Your task to perform on an android device: Open maps Image 0: 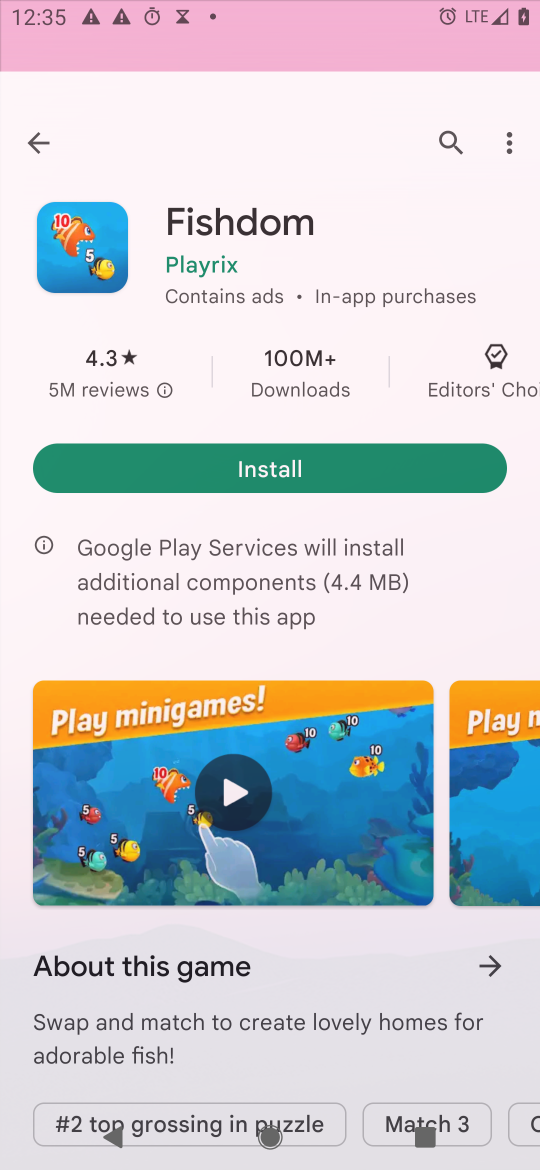
Step 0: drag from (219, 724) to (201, 476)
Your task to perform on an android device: Open maps Image 1: 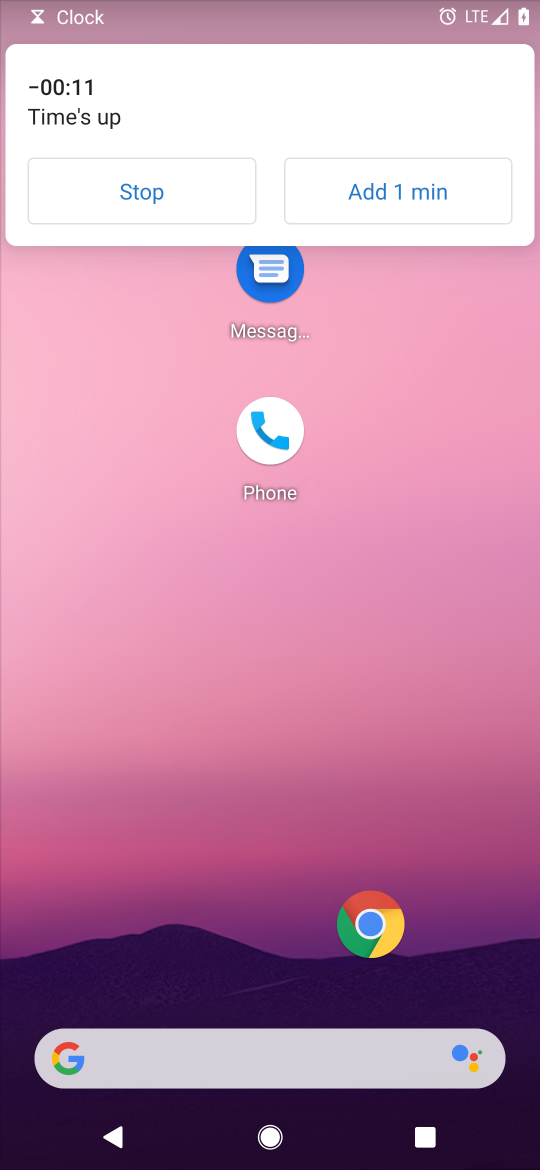
Step 1: click (132, 170)
Your task to perform on an android device: Open maps Image 2: 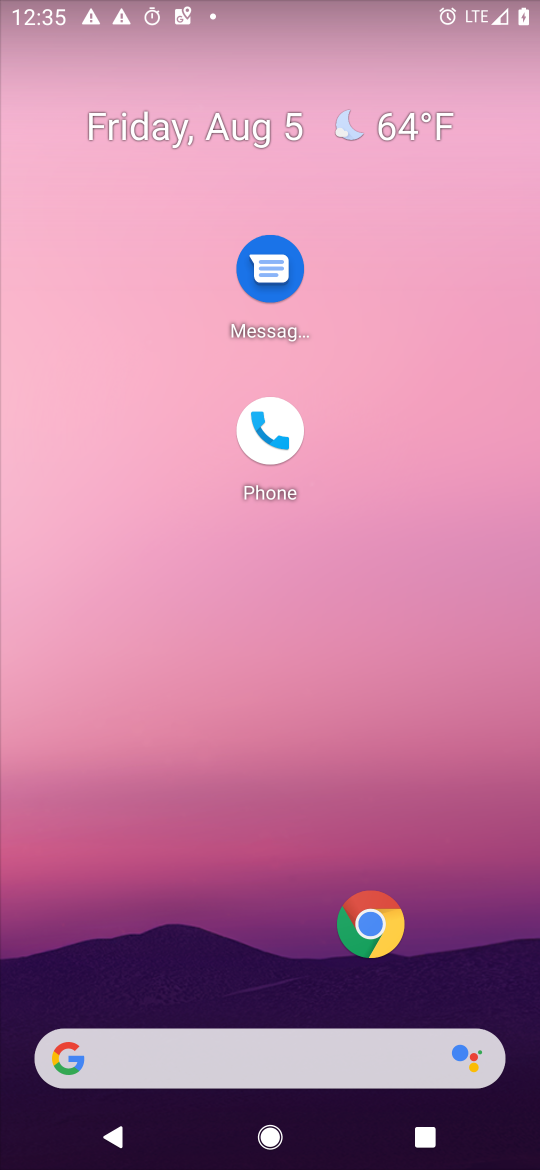
Step 2: drag from (267, 563) to (456, 438)
Your task to perform on an android device: Open maps Image 3: 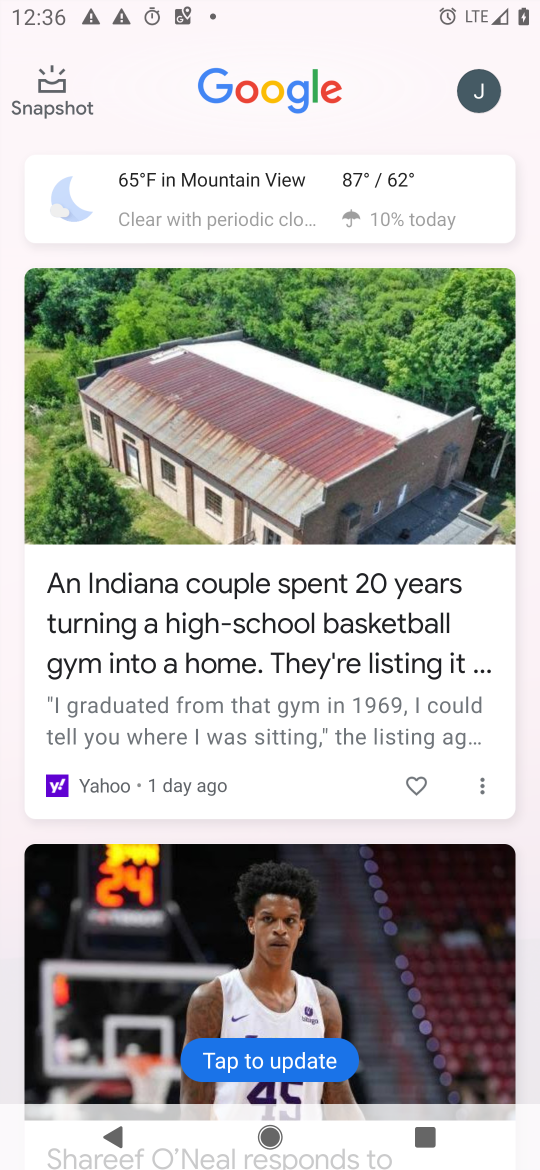
Step 3: drag from (322, 896) to (361, 303)
Your task to perform on an android device: Open maps Image 4: 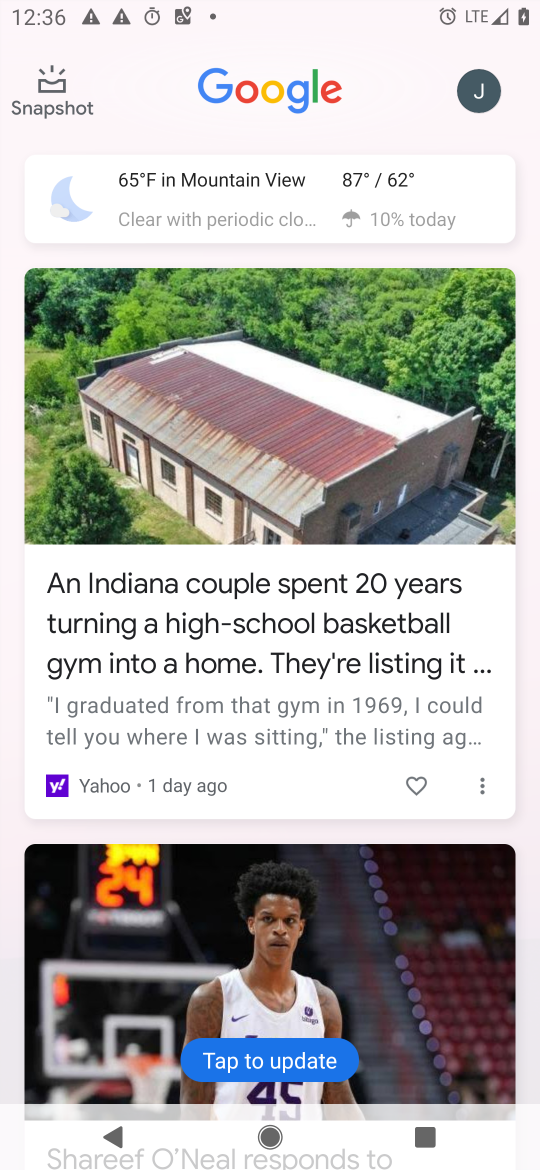
Step 4: press home button
Your task to perform on an android device: Open maps Image 5: 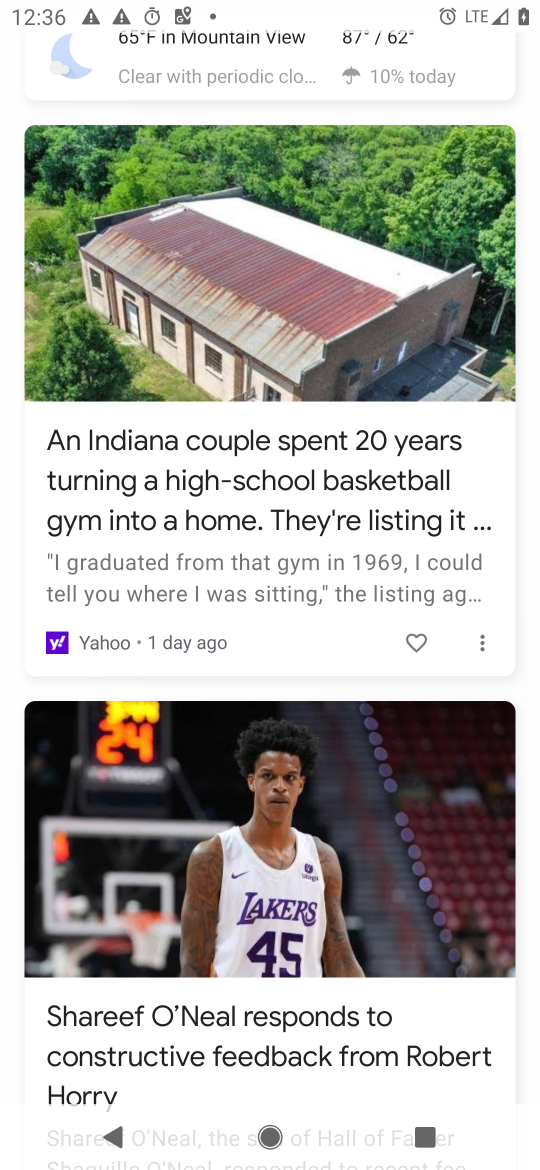
Step 5: drag from (277, 889) to (340, 227)
Your task to perform on an android device: Open maps Image 6: 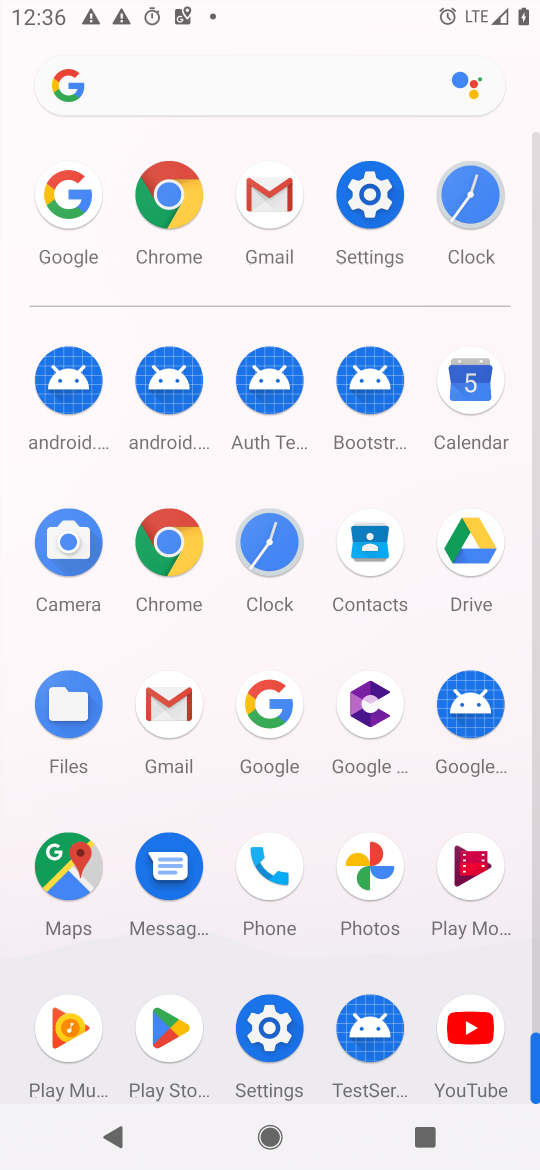
Step 6: click (64, 859)
Your task to perform on an android device: Open maps Image 7: 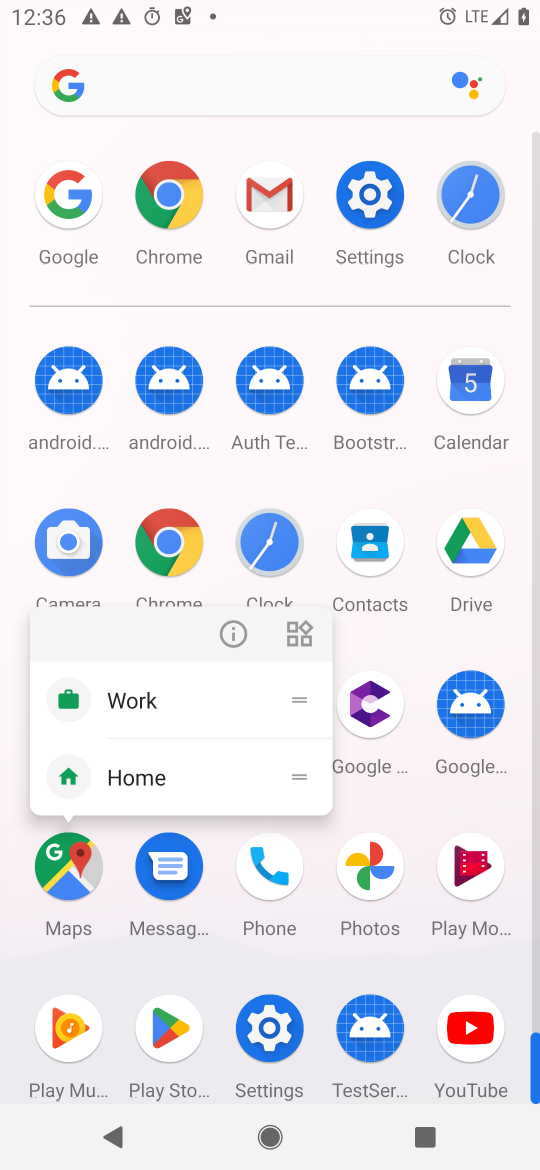
Step 7: click (214, 625)
Your task to perform on an android device: Open maps Image 8: 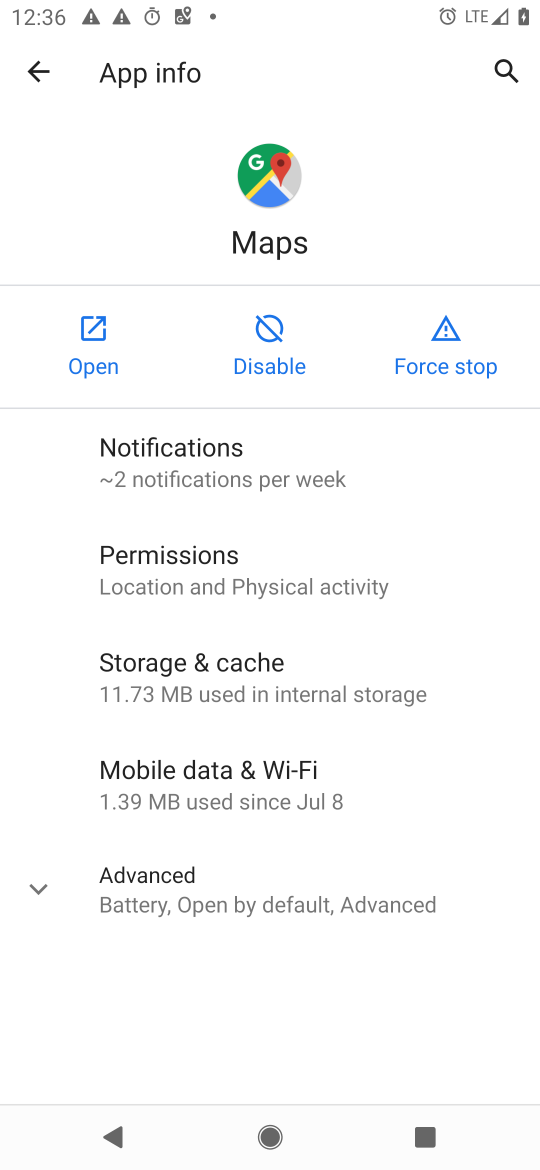
Step 8: click (93, 340)
Your task to perform on an android device: Open maps Image 9: 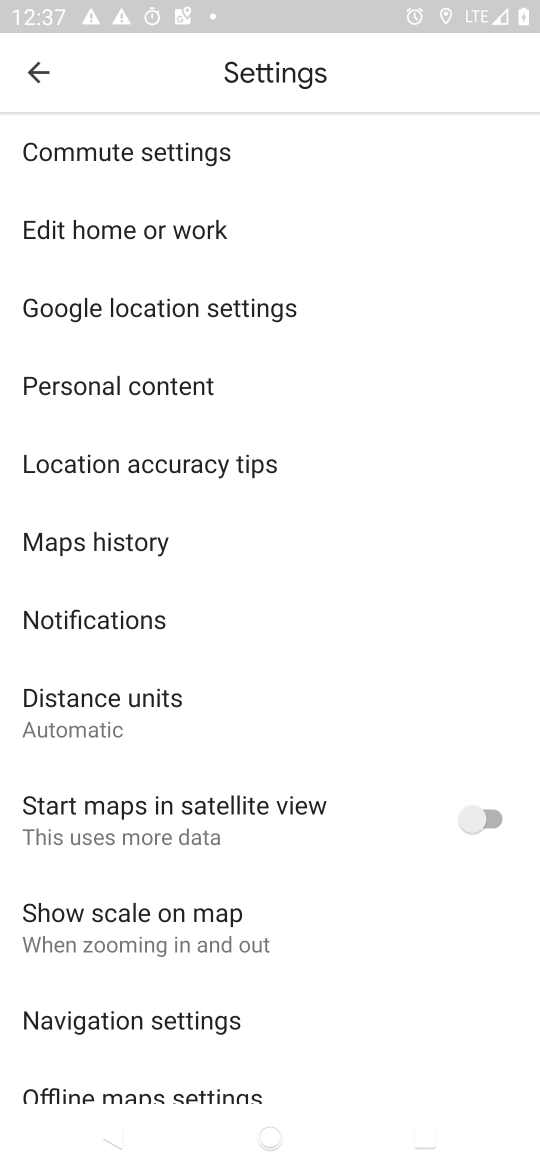
Step 9: task complete